Your task to perform on an android device: Show me popular games on the Play Store Image 0: 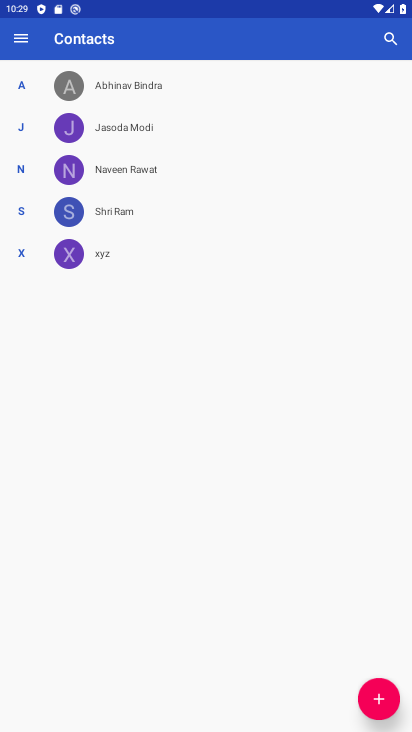
Step 0: press home button
Your task to perform on an android device: Show me popular games on the Play Store Image 1: 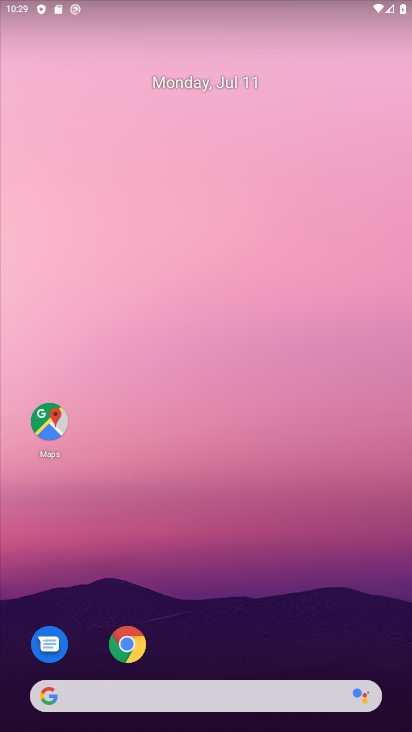
Step 1: drag from (223, 606) to (262, 10)
Your task to perform on an android device: Show me popular games on the Play Store Image 2: 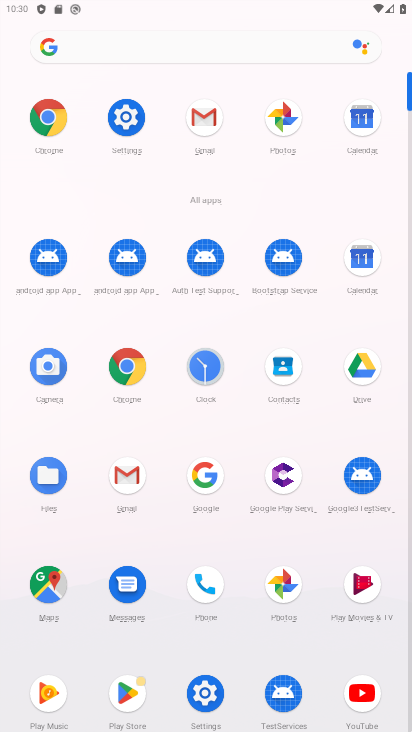
Step 2: click (135, 691)
Your task to perform on an android device: Show me popular games on the Play Store Image 3: 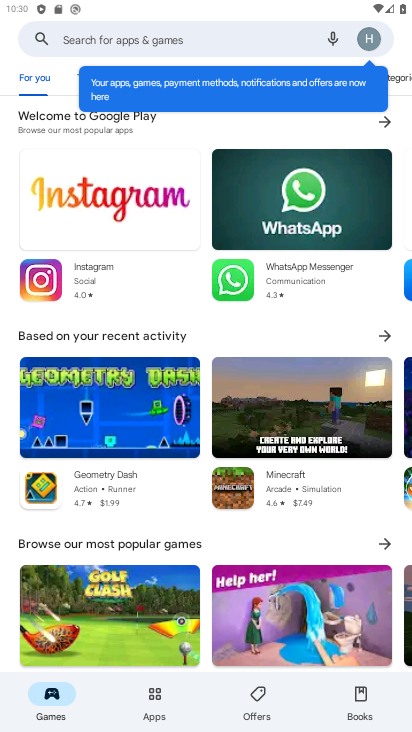
Step 3: click (70, 72)
Your task to perform on an android device: Show me popular games on the Play Store Image 4: 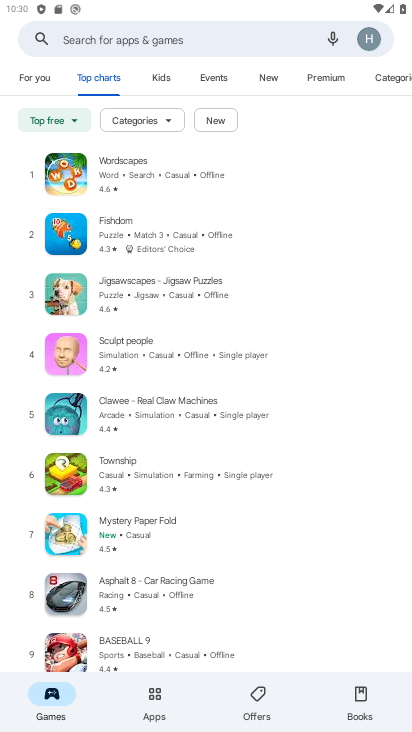
Step 4: task complete